Your task to perform on an android device: see sites visited before in the chrome app Image 0: 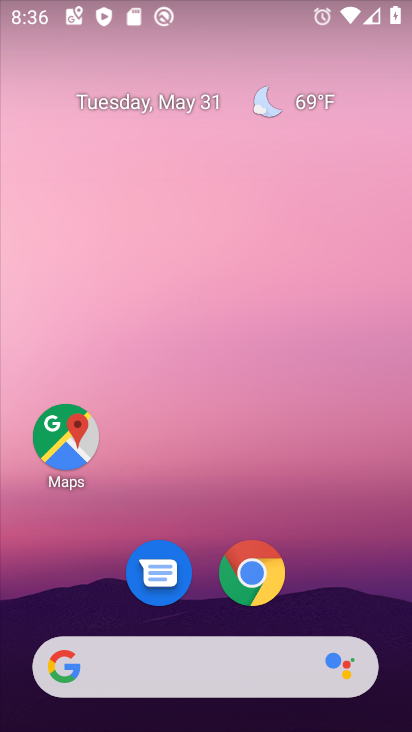
Step 0: click (247, 578)
Your task to perform on an android device: see sites visited before in the chrome app Image 1: 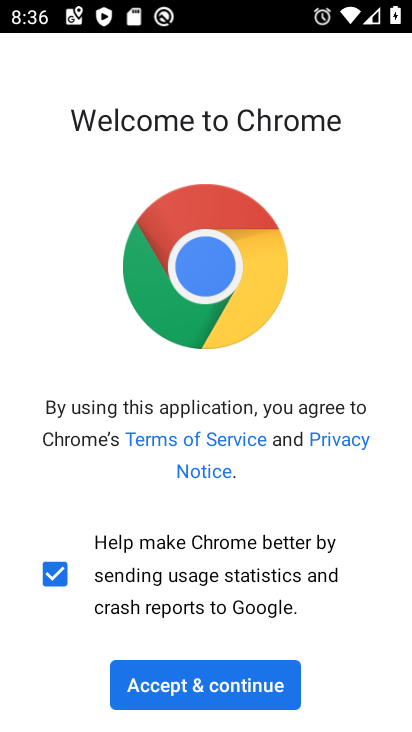
Step 1: click (164, 676)
Your task to perform on an android device: see sites visited before in the chrome app Image 2: 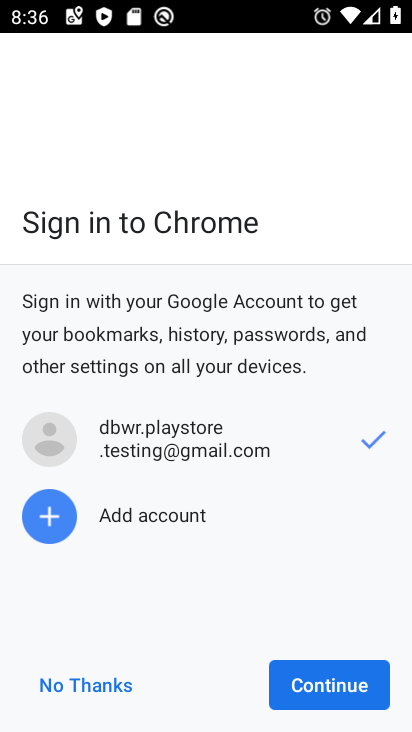
Step 2: click (294, 684)
Your task to perform on an android device: see sites visited before in the chrome app Image 3: 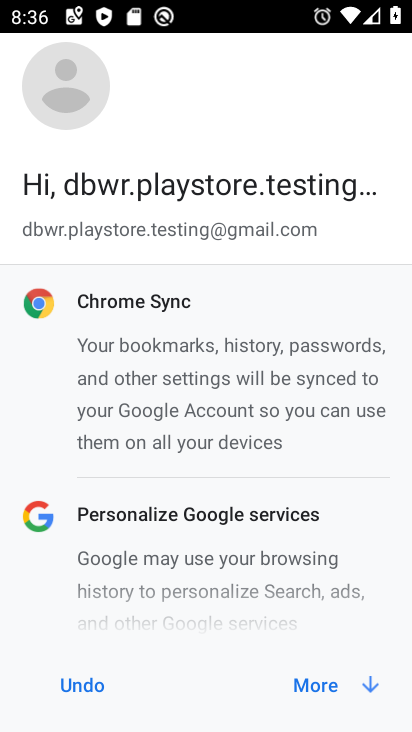
Step 3: click (294, 684)
Your task to perform on an android device: see sites visited before in the chrome app Image 4: 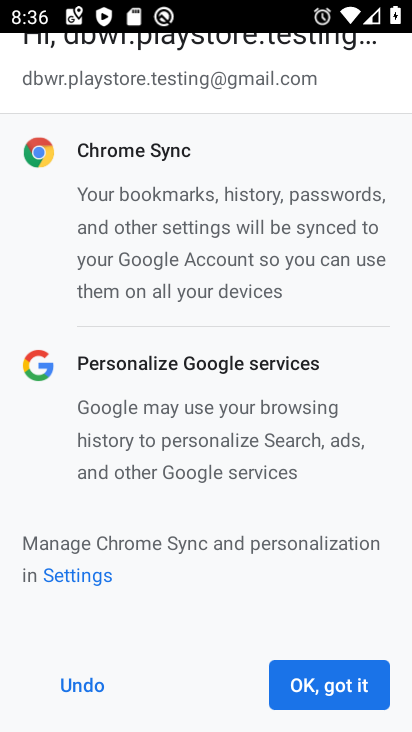
Step 4: click (294, 684)
Your task to perform on an android device: see sites visited before in the chrome app Image 5: 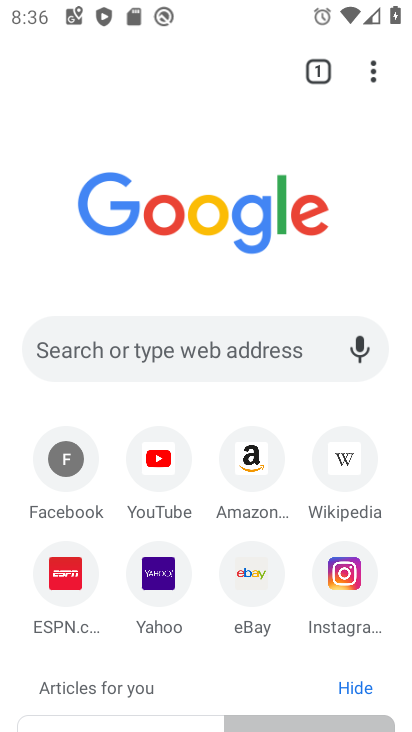
Step 5: click (372, 68)
Your task to perform on an android device: see sites visited before in the chrome app Image 6: 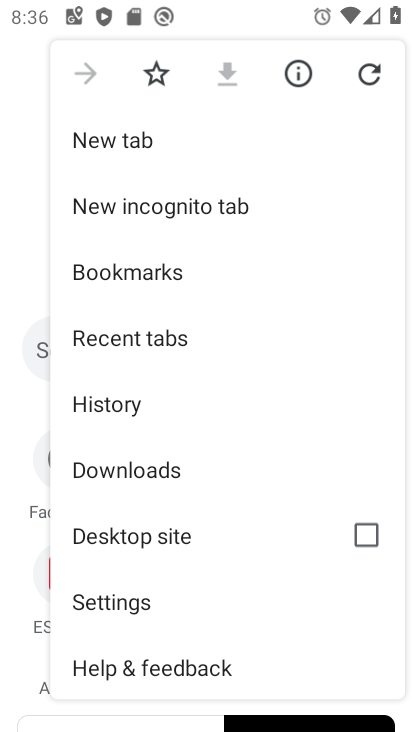
Step 6: click (143, 404)
Your task to perform on an android device: see sites visited before in the chrome app Image 7: 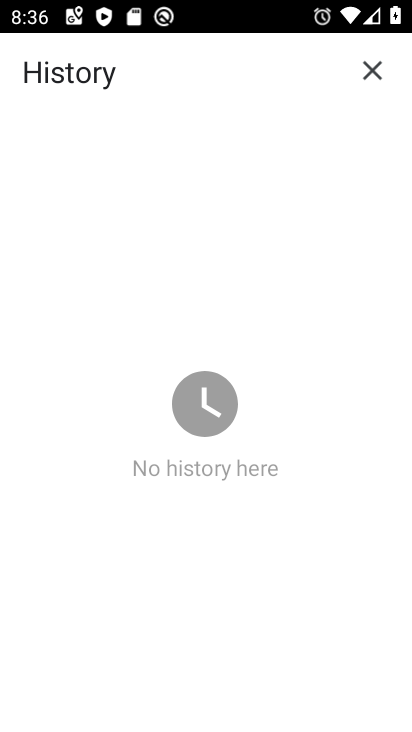
Step 7: task complete